Your task to perform on an android device: visit the assistant section in the google photos Image 0: 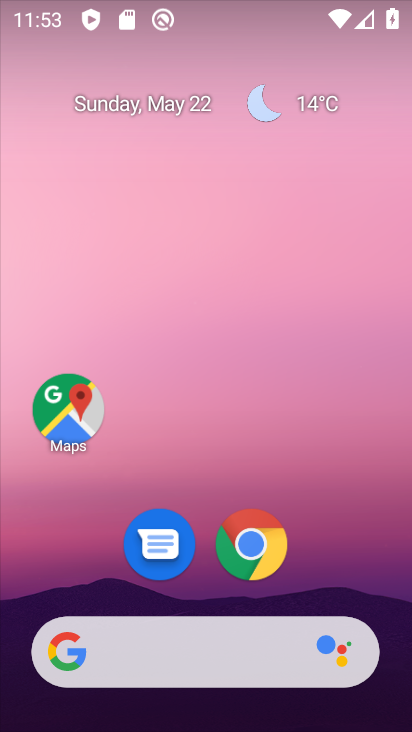
Step 0: drag from (331, 546) to (327, 116)
Your task to perform on an android device: visit the assistant section in the google photos Image 1: 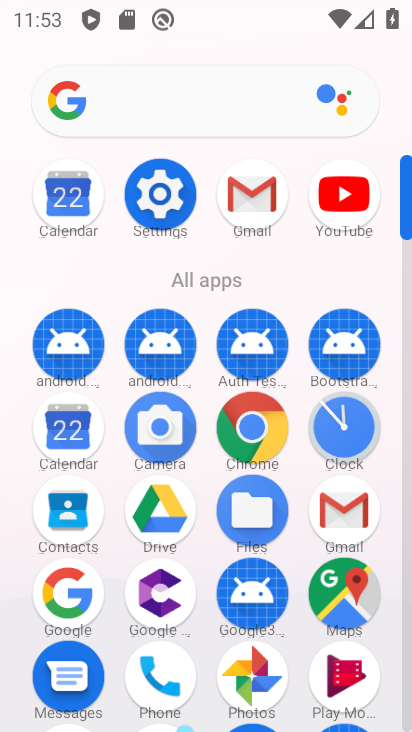
Step 1: click (247, 667)
Your task to perform on an android device: visit the assistant section in the google photos Image 2: 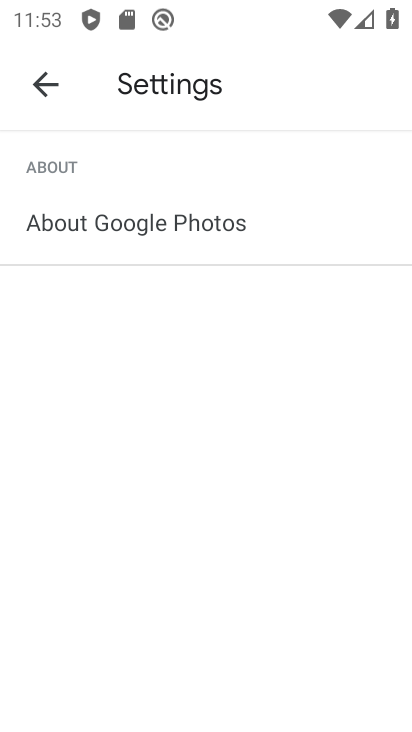
Step 2: click (42, 91)
Your task to perform on an android device: visit the assistant section in the google photos Image 3: 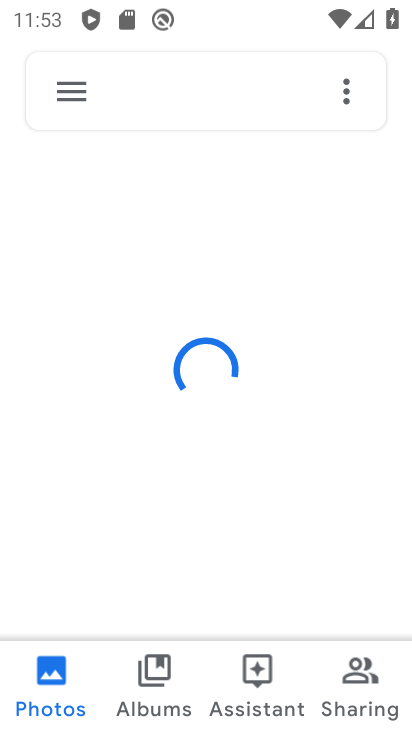
Step 3: click (237, 672)
Your task to perform on an android device: visit the assistant section in the google photos Image 4: 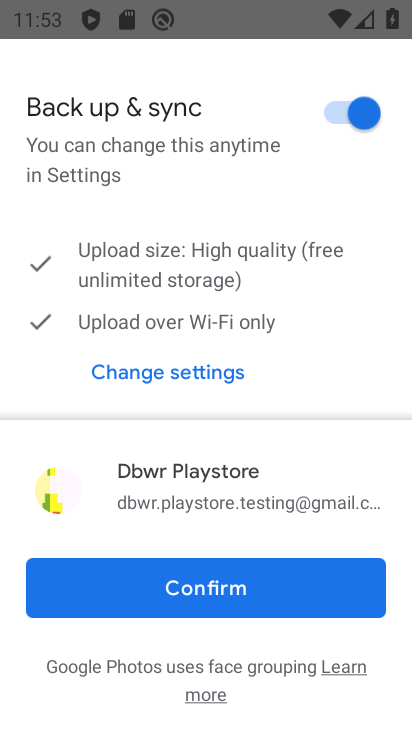
Step 4: click (289, 601)
Your task to perform on an android device: visit the assistant section in the google photos Image 5: 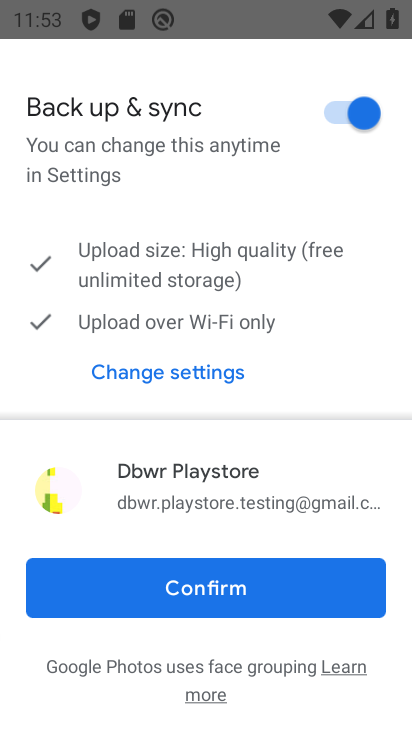
Step 5: click (286, 601)
Your task to perform on an android device: visit the assistant section in the google photos Image 6: 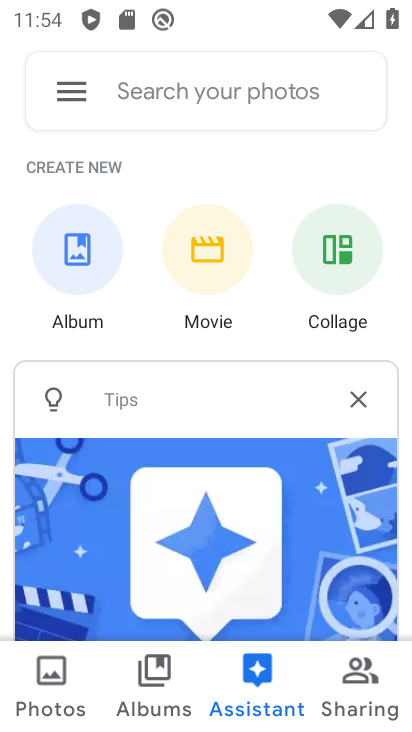
Step 6: task complete